Your task to perform on an android device: set the stopwatch Image 0: 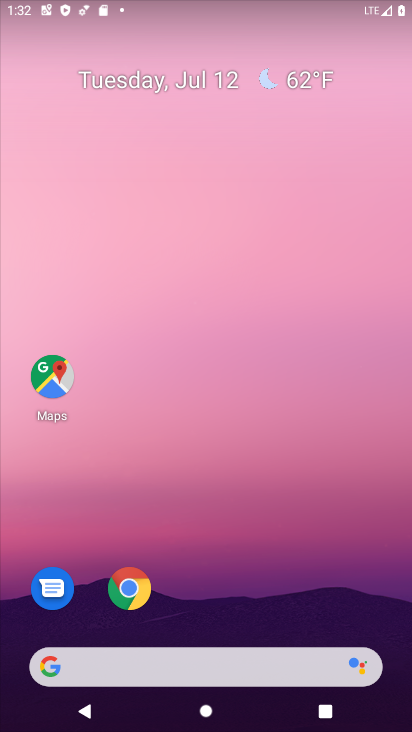
Step 0: drag from (155, 703) to (373, 68)
Your task to perform on an android device: set the stopwatch Image 1: 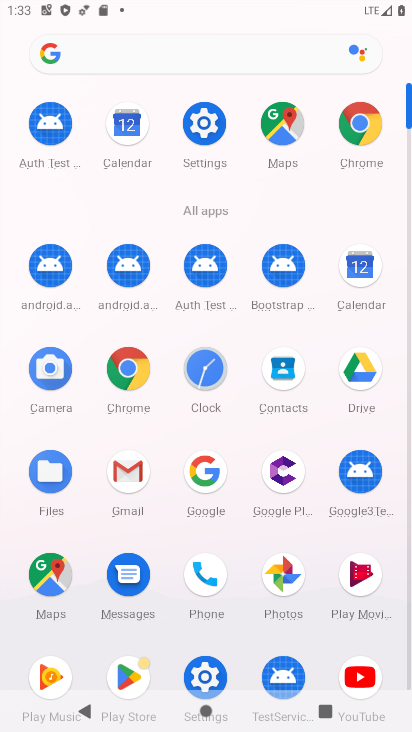
Step 1: click (223, 365)
Your task to perform on an android device: set the stopwatch Image 2: 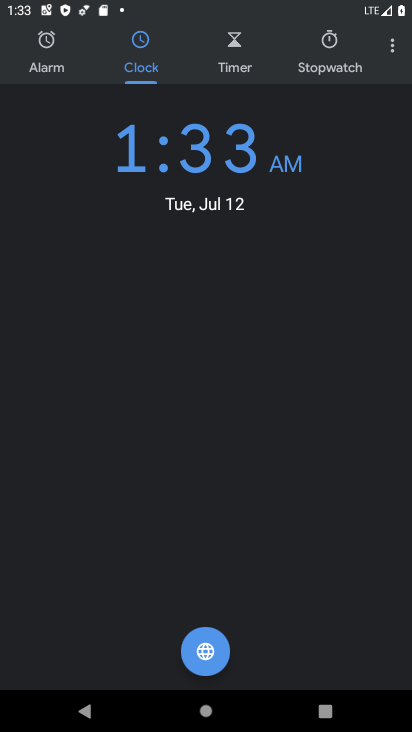
Step 2: click (339, 39)
Your task to perform on an android device: set the stopwatch Image 3: 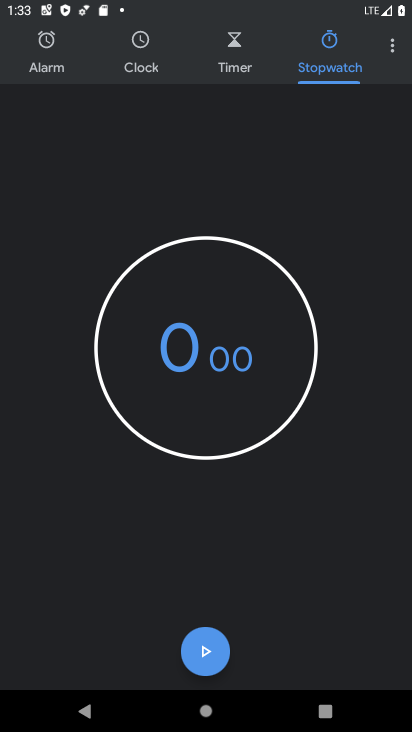
Step 3: task complete